Your task to perform on an android device: open app "Google Chat" Image 0: 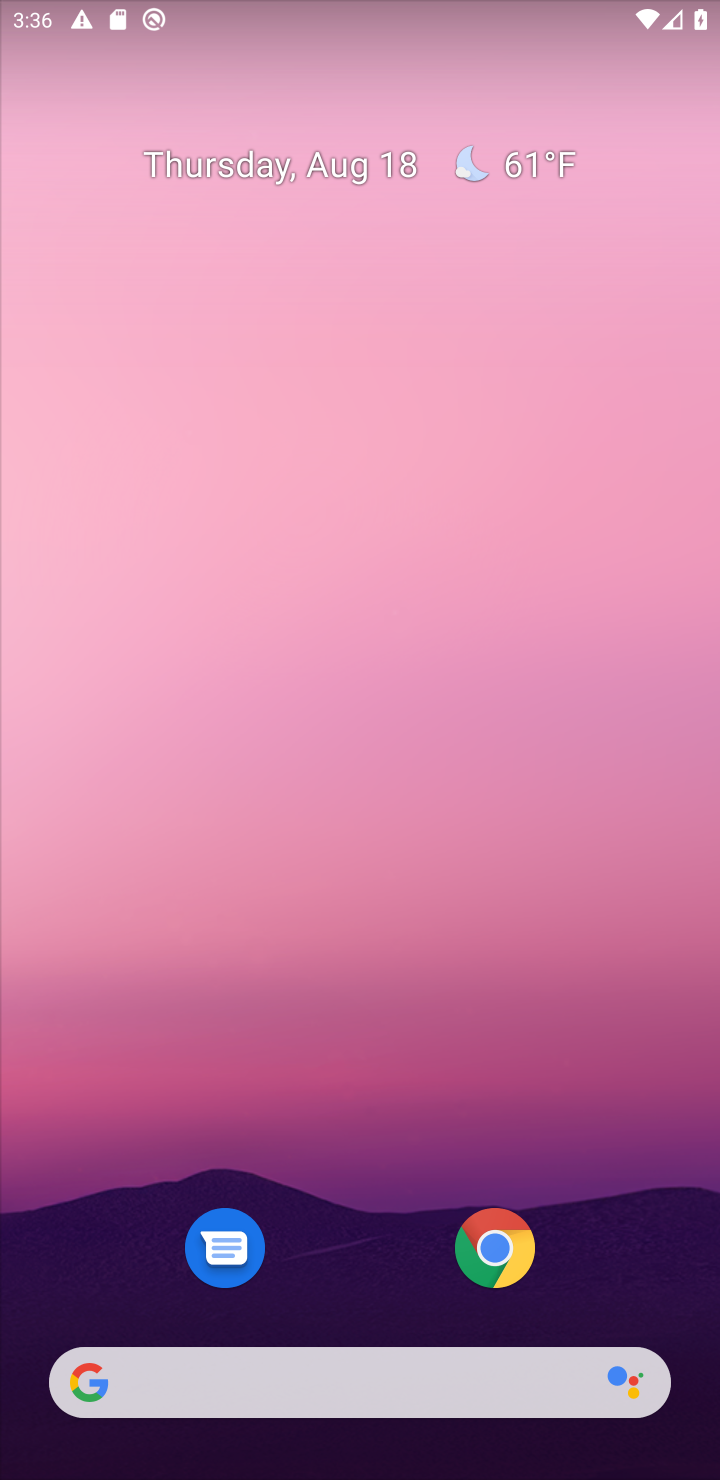
Step 0: drag from (380, 1321) to (325, 44)
Your task to perform on an android device: open app "Google Chat" Image 1: 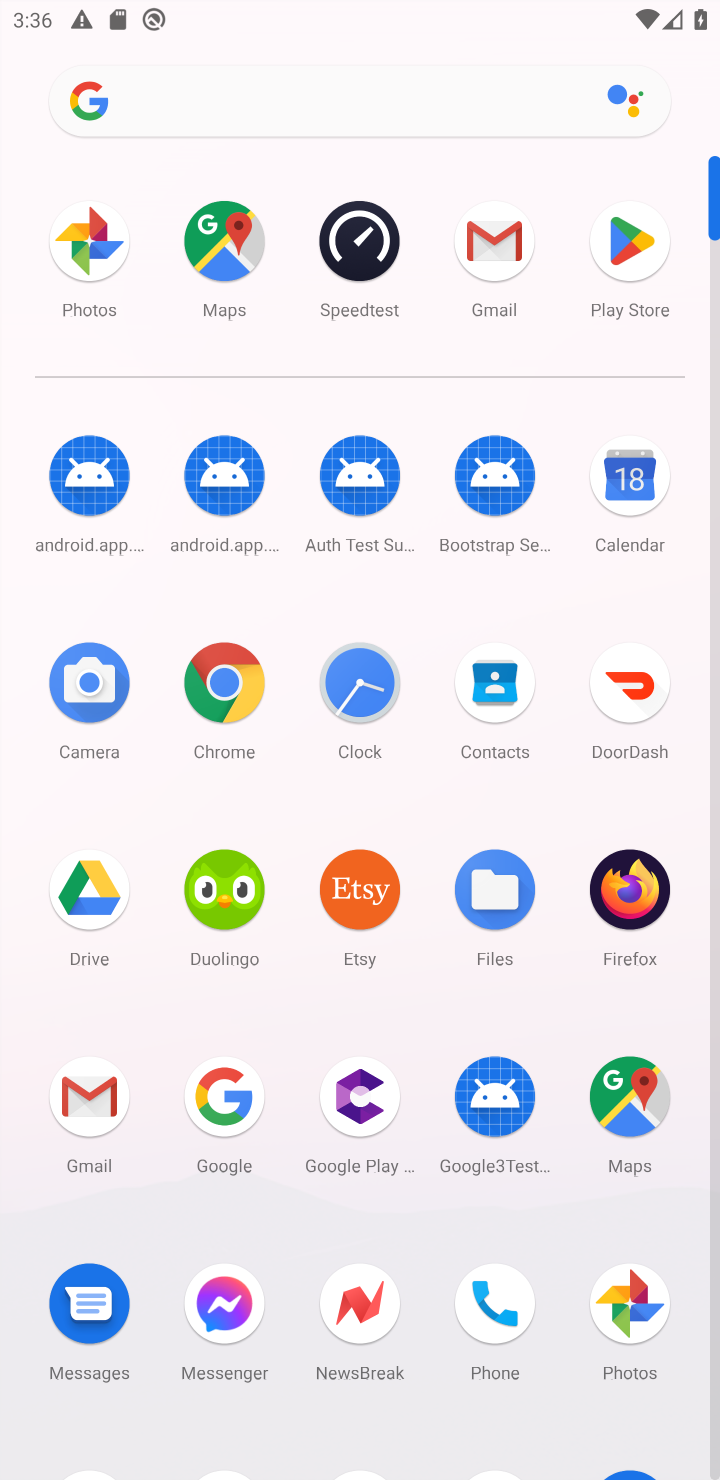
Step 1: click (635, 249)
Your task to perform on an android device: open app "Google Chat" Image 2: 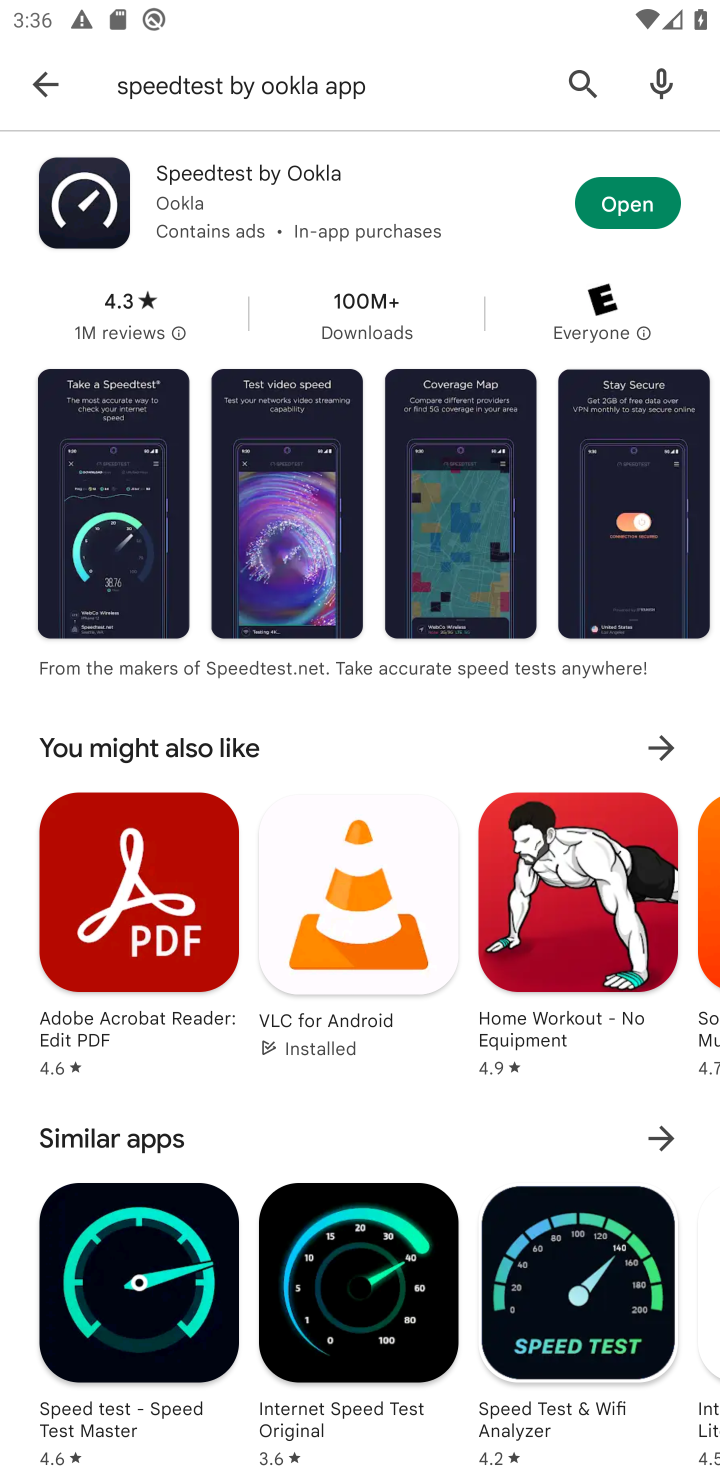
Step 2: click (576, 79)
Your task to perform on an android device: open app "Google Chat" Image 3: 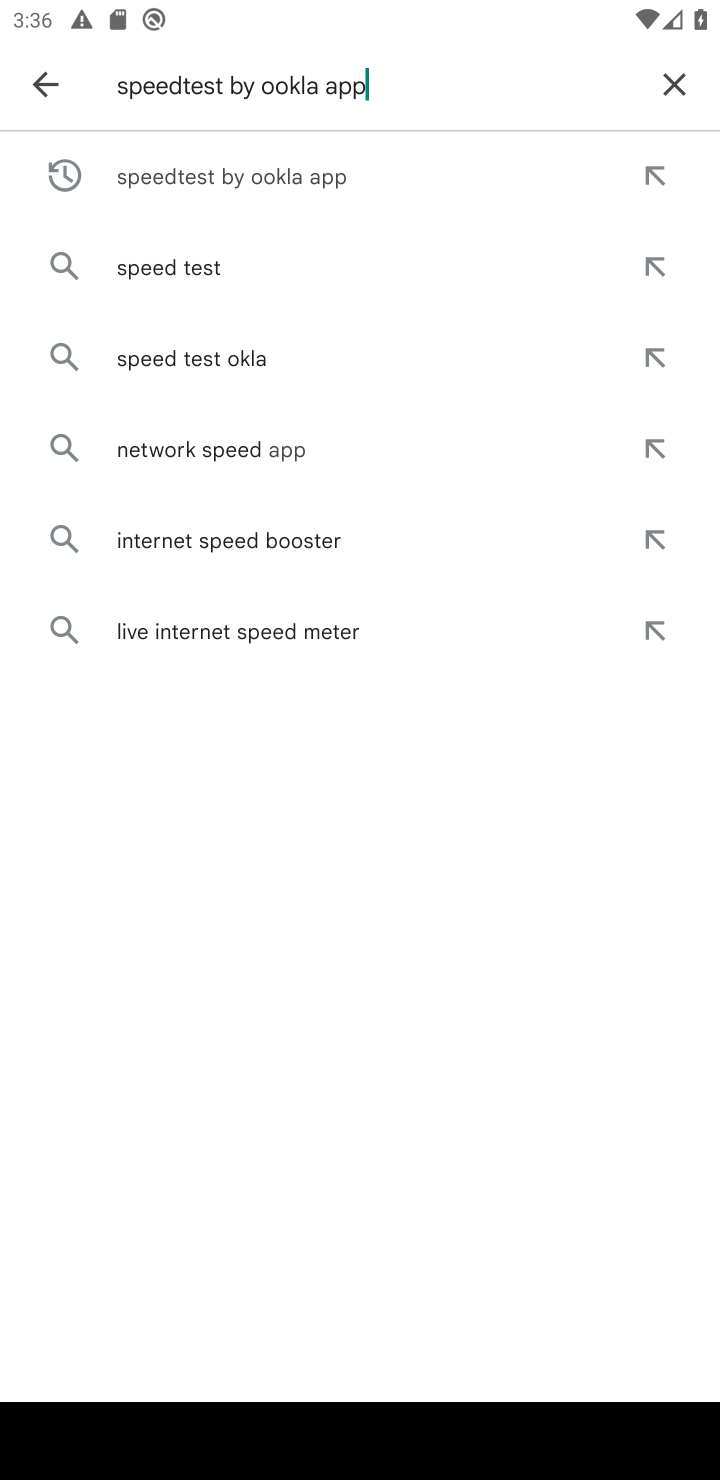
Step 3: click (678, 77)
Your task to perform on an android device: open app "Google Chat" Image 4: 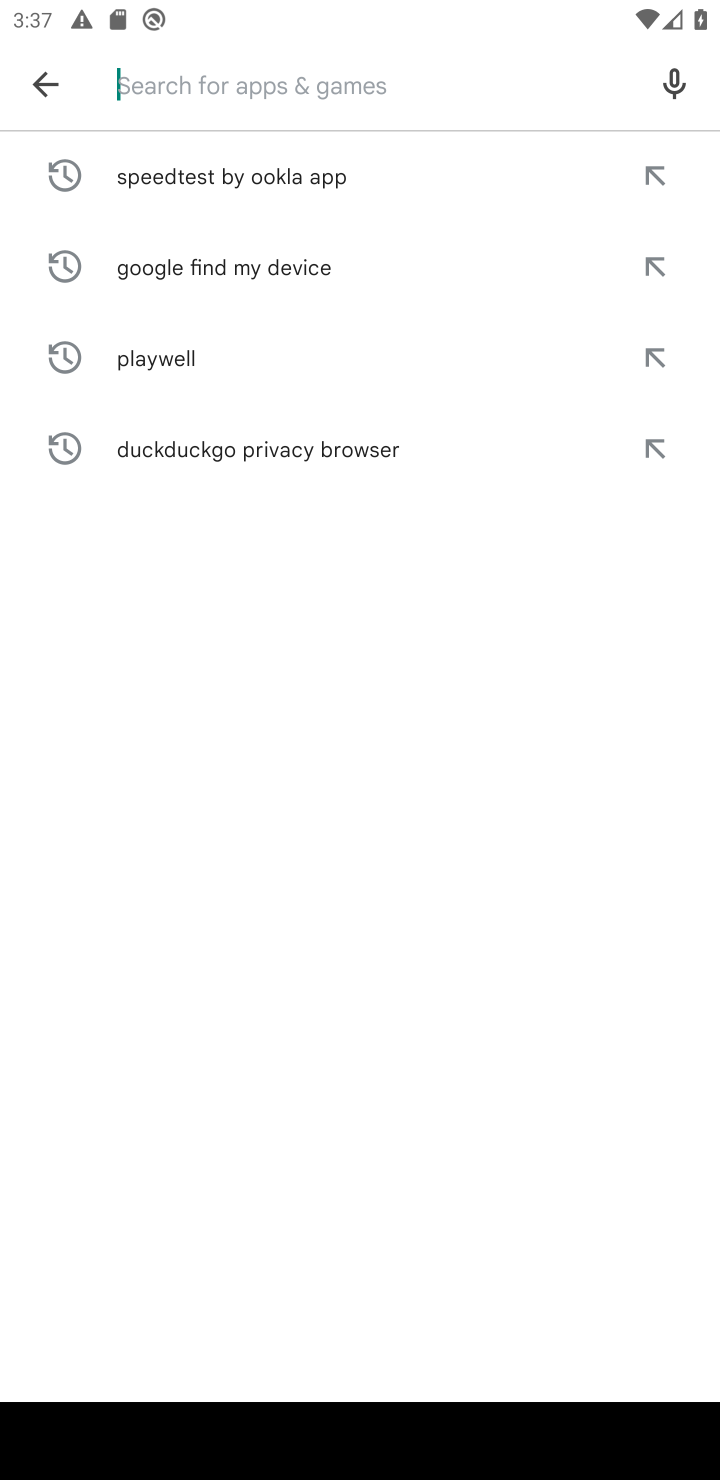
Step 4: type "Google Chat"
Your task to perform on an android device: open app "Google Chat" Image 5: 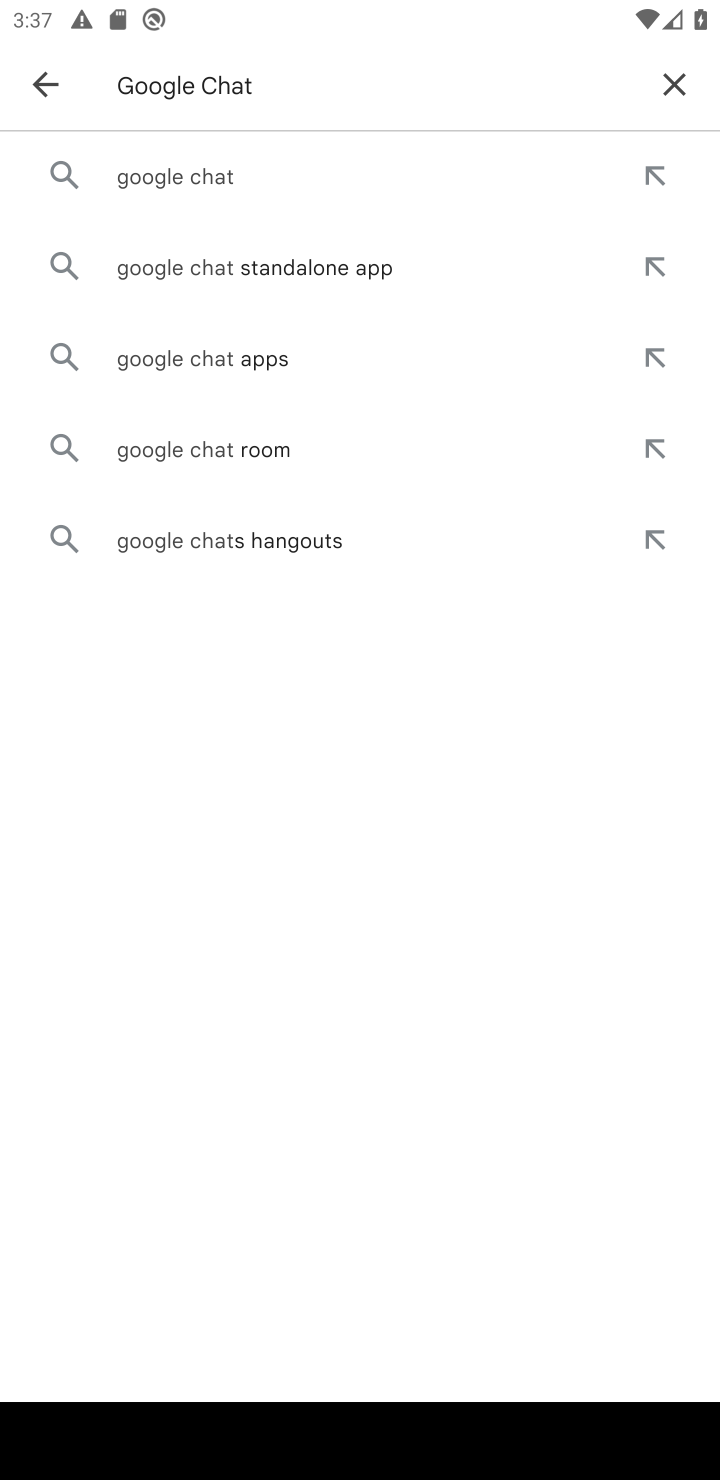
Step 5: click (201, 170)
Your task to perform on an android device: open app "Google Chat" Image 6: 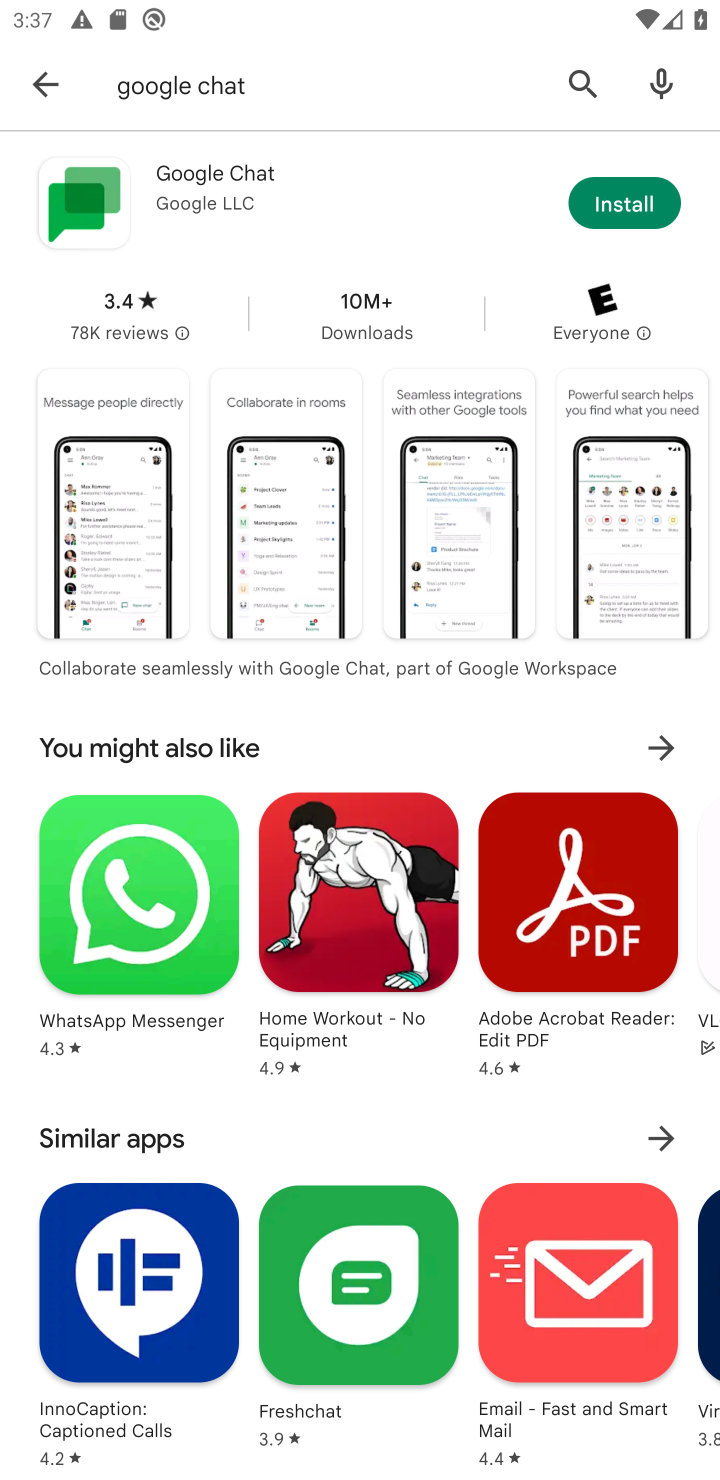
Step 6: task complete